Your task to perform on an android device: manage bookmarks in the chrome app Image 0: 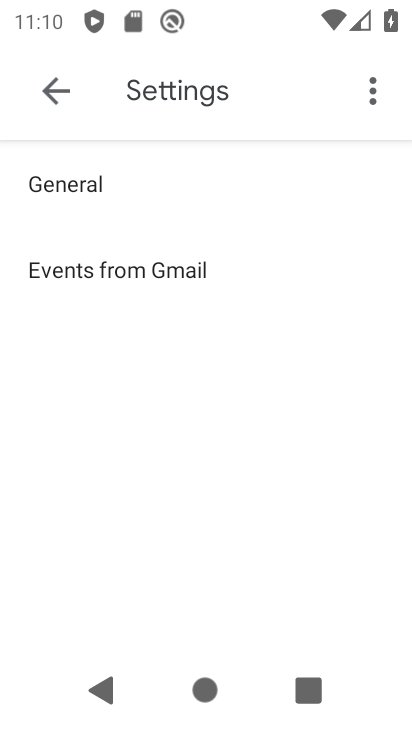
Step 0: press back button
Your task to perform on an android device: manage bookmarks in the chrome app Image 1: 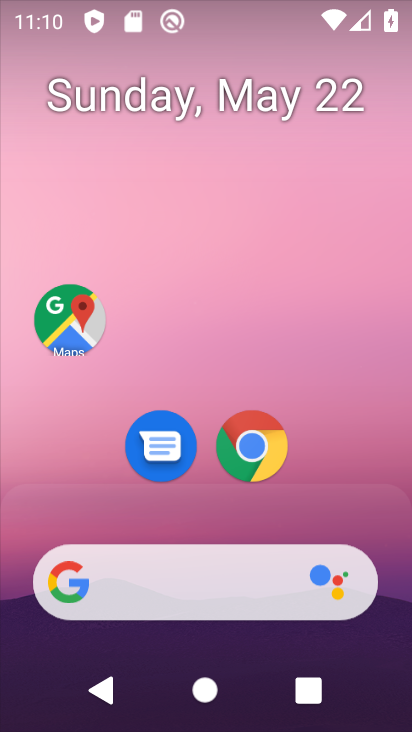
Step 1: drag from (214, 531) to (347, 7)
Your task to perform on an android device: manage bookmarks in the chrome app Image 2: 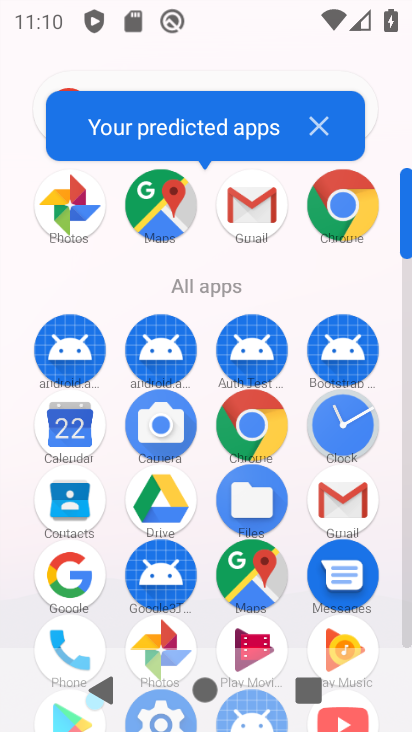
Step 2: drag from (162, 555) to (226, 87)
Your task to perform on an android device: manage bookmarks in the chrome app Image 3: 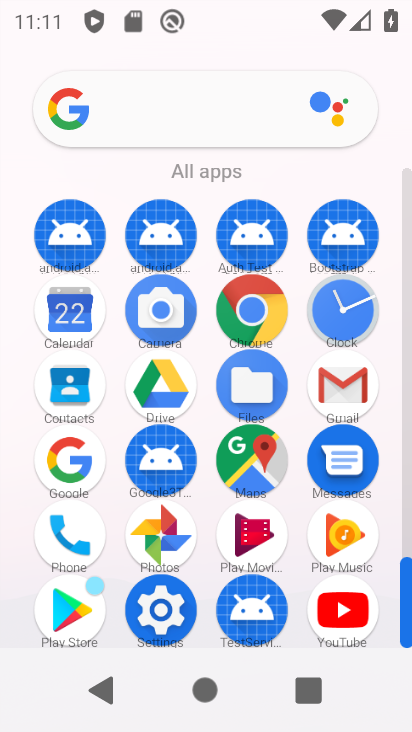
Step 3: click (161, 597)
Your task to perform on an android device: manage bookmarks in the chrome app Image 4: 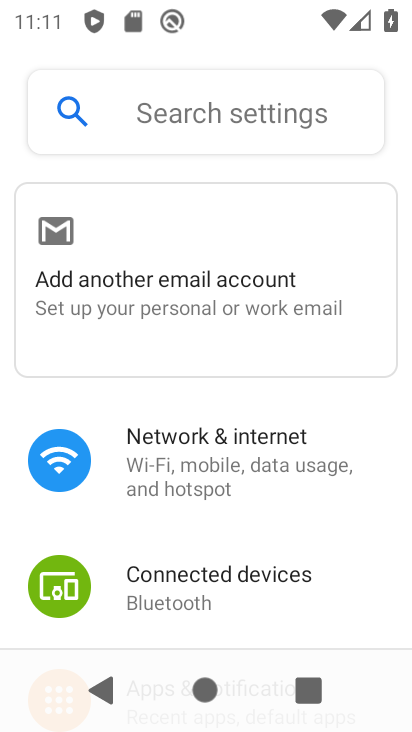
Step 4: press back button
Your task to perform on an android device: manage bookmarks in the chrome app Image 5: 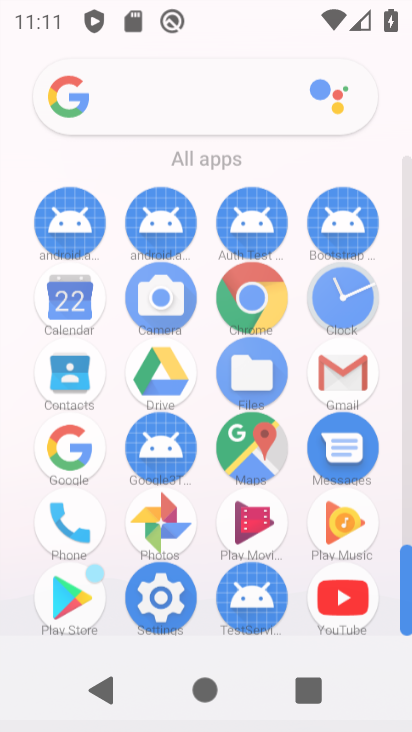
Step 5: press back button
Your task to perform on an android device: manage bookmarks in the chrome app Image 6: 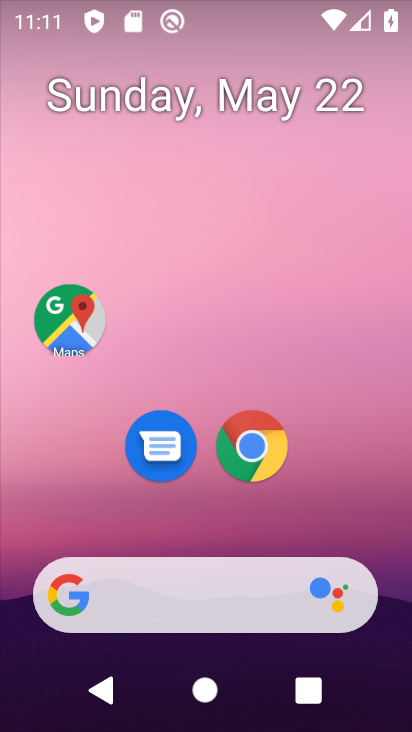
Step 6: click (249, 463)
Your task to perform on an android device: manage bookmarks in the chrome app Image 7: 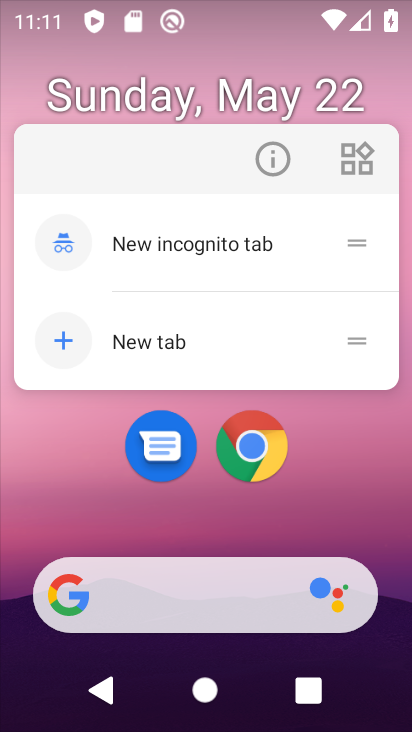
Step 7: click (258, 439)
Your task to perform on an android device: manage bookmarks in the chrome app Image 8: 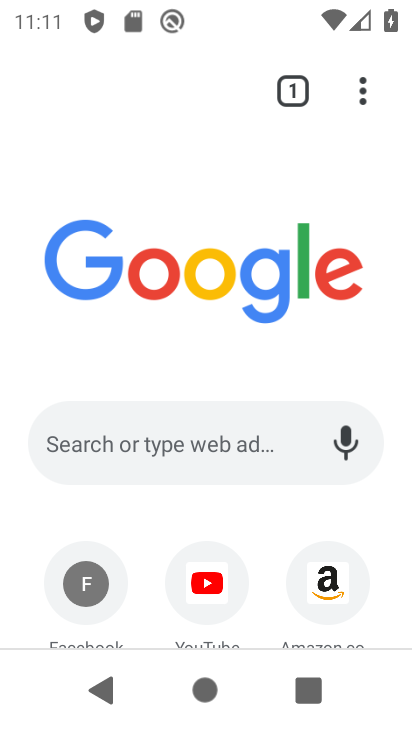
Step 8: task complete